Your task to perform on an android device: check battery use Image 0: 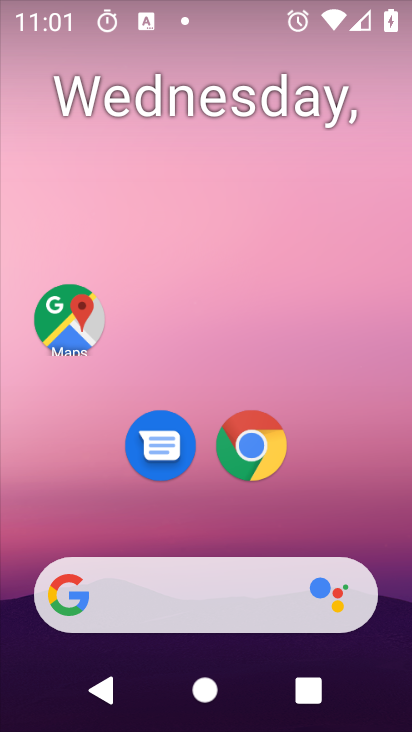
Step 0: drag from (323, 474) to (364, 10)
Your task to perform on an android device: check battery use Image 1: 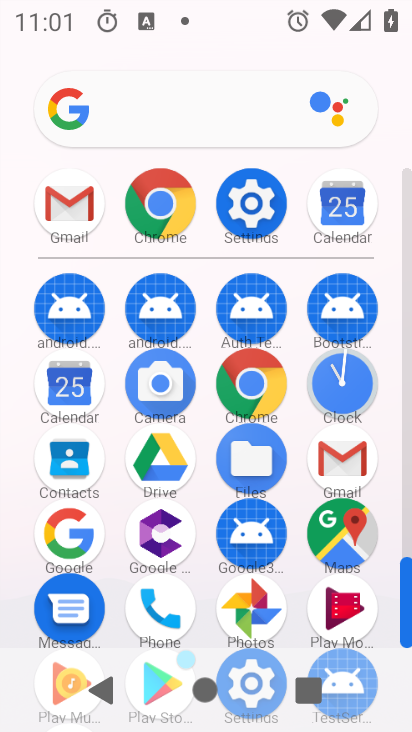
Step 1: click (249, 203)
Your task to perform on an android device: check battery use Image 2: 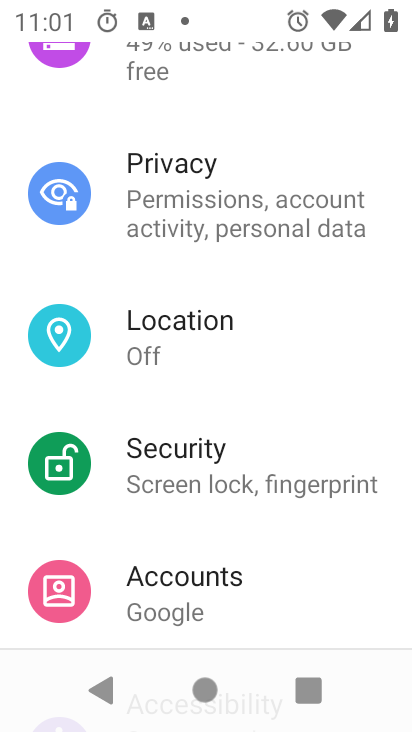
Step 2: drag from (248, 193) to (306, 648)
Your task to perform on an android device: check battery use Image 3: 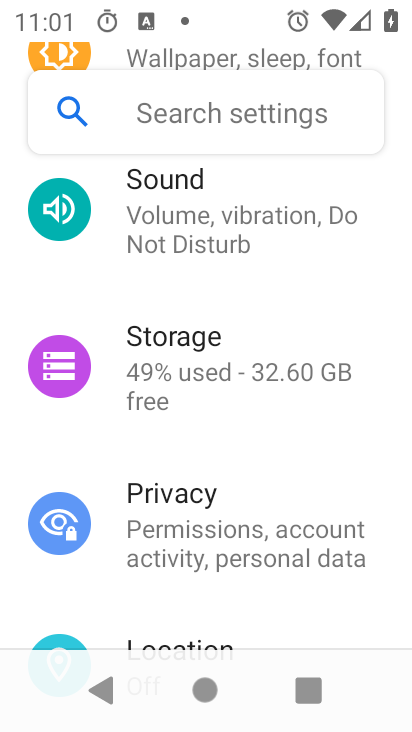
Step 3: drag from (275, 248) to (308, 711)
Your task to perform on an android device: check battery use Image 4: 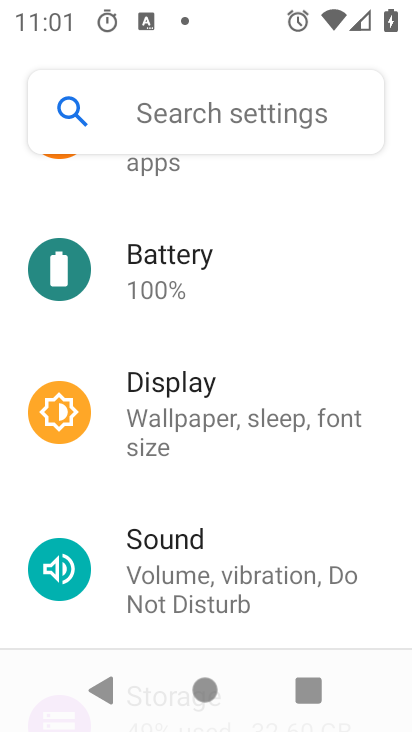
Step 4: drag from (288, 269) to (294, 724)
Your task to perform on an android device: check battery use Image 5: 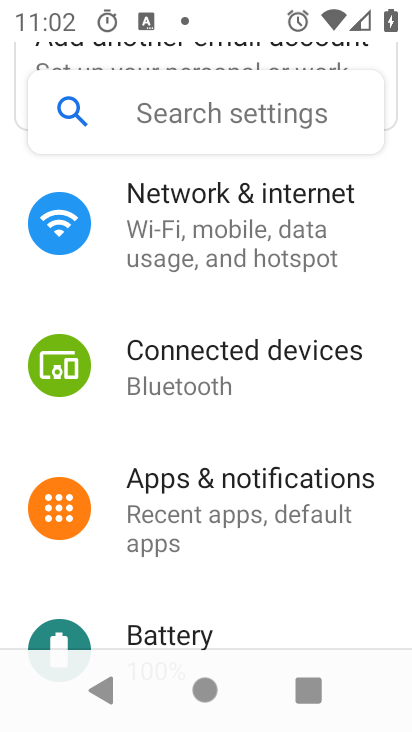
Step 5: drag from (292, 298) to (252, 688)
Your task to perform on an android device: check battery use Image 6: 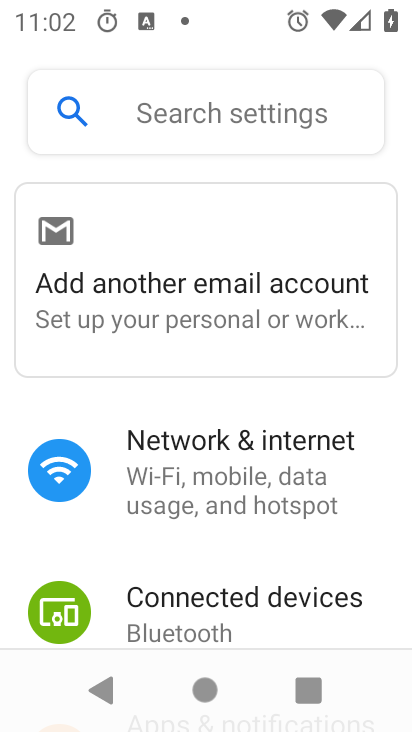
Step 6: drag from (252, 688) to (242, 262)
Your task to perform on an android device: check battery use Image 7: 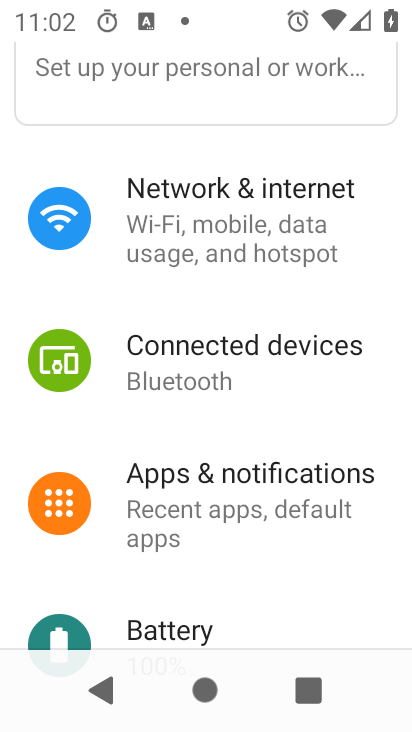
Step 7: drag from (280, 550) to (260, 222)
Your task to perform on an android device: check battery use Image 8: 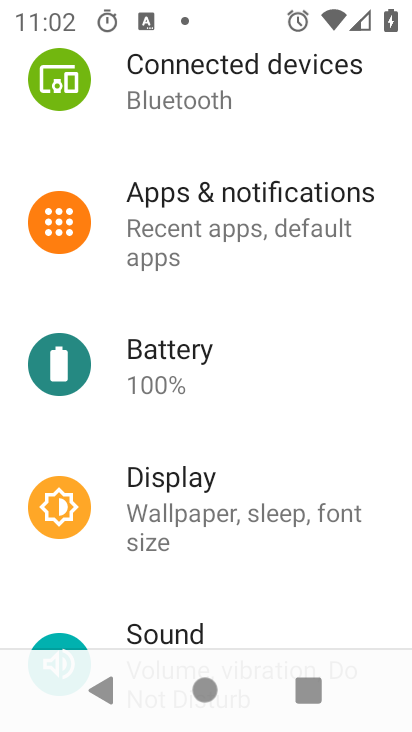
Step 8: click (186, 374)
Your task to perform on an android device: check battery use Image 9: 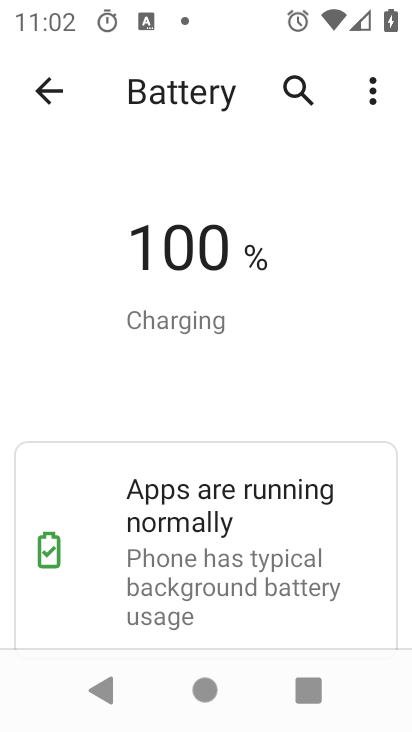
Step 9: task complete